Your task to perform on an android device: turn pop-ups on in chrome Image 0: 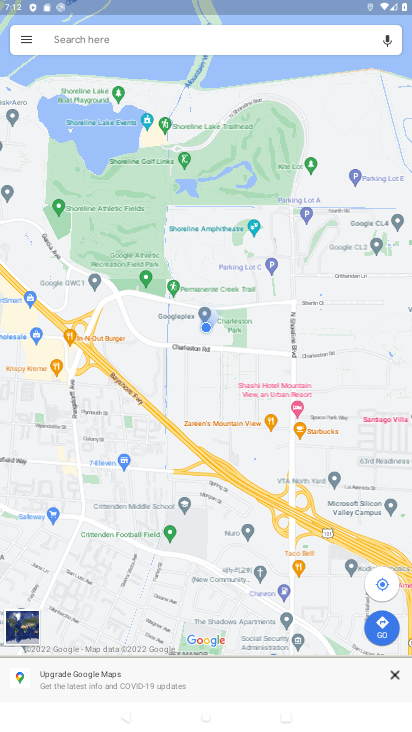
Step 0: press home button
Your task to perform on an android device: turn pop-ups on in chrome Image 1: 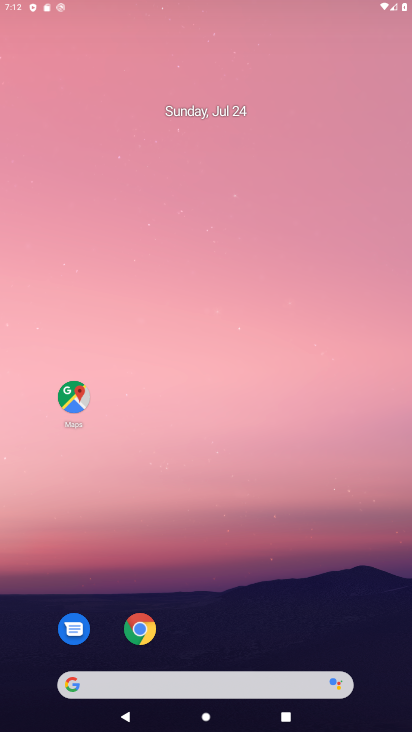
Step 1: drag from (223, 30) to (23, 206)
Your task to perform on an android device: turn pop-ups on in chrome Image 2: 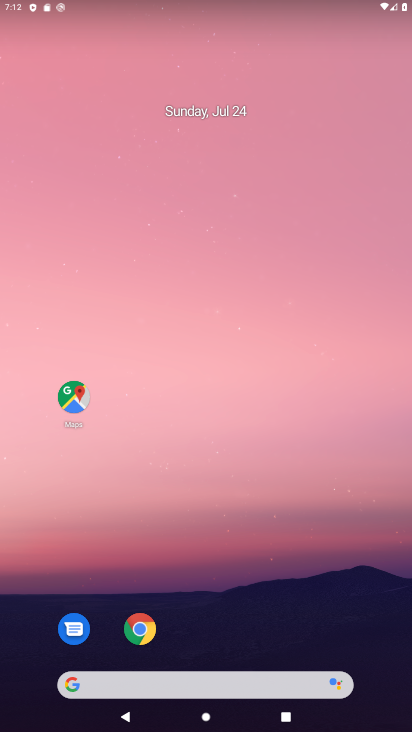
Step 2: drag from (321, 615) to (231, 0)
Your task to perform on an android device: turn pop-ups on in chrome Image 3: 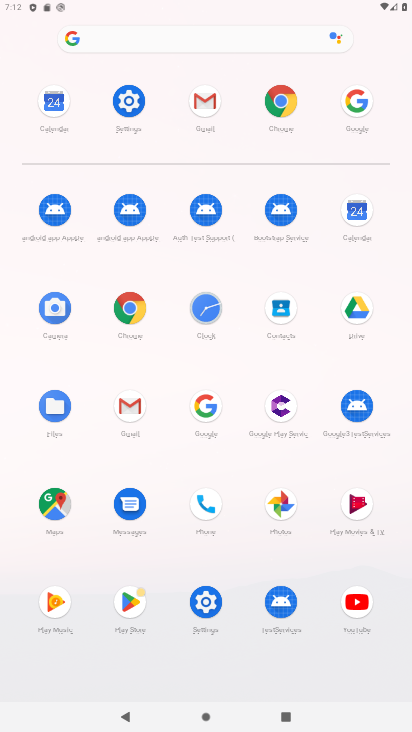
Step 3: click (123, 304)
Your task to perform on an android device: turn pop-ups on in chrome Image 4: 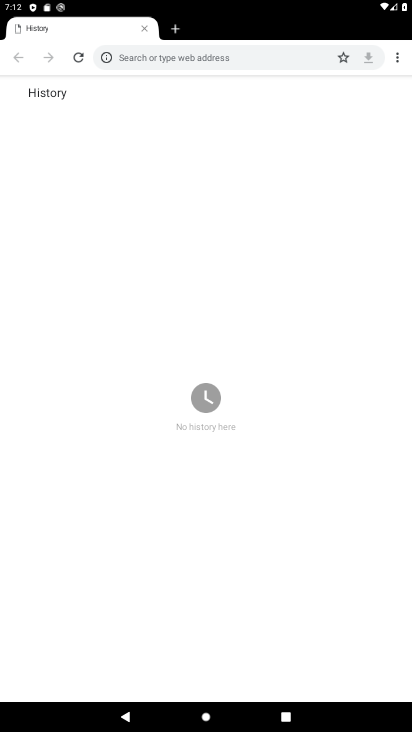
Step 4: click (394, 52)
Your task to perform on an android device: turn pop-ups on in chrome Image 5: 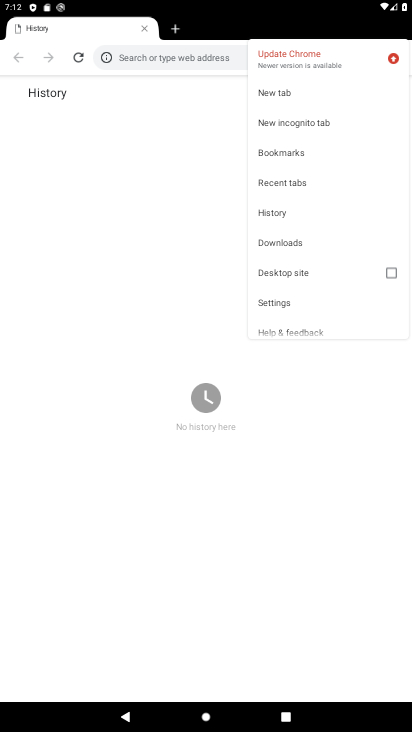
Step 5: click (270, 311)
Your task to perform on an android device: turn pop-ups on in chrome Image 6: 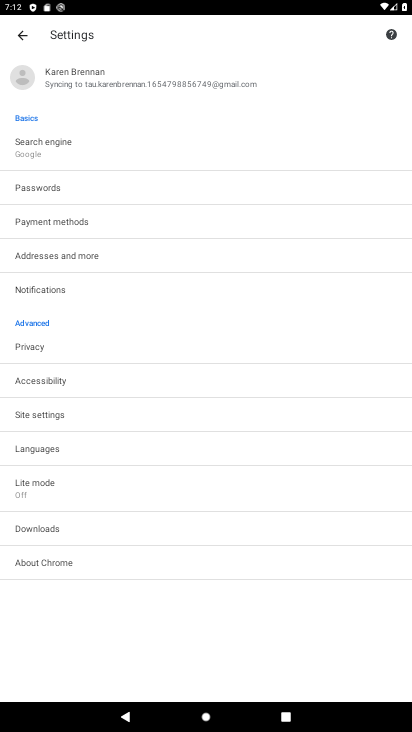
Step 6: click (81, 417)
Your task to perform on an android device: turn pop-ups on in chrome Image 7: 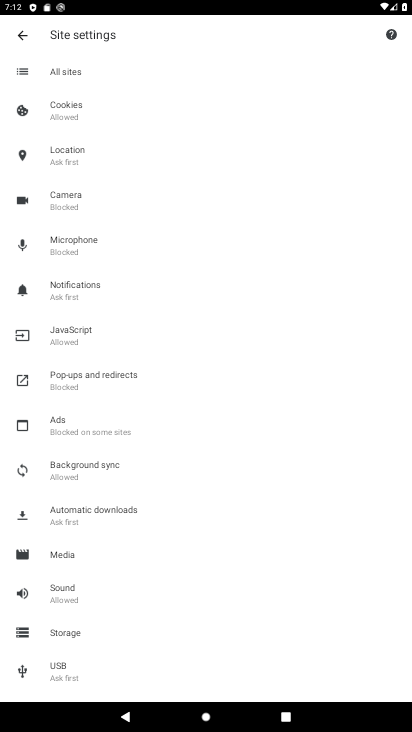
Step 7: click (114, 376)
Your task to perform on an android device: turn pop-ups on in chrome Image 8: 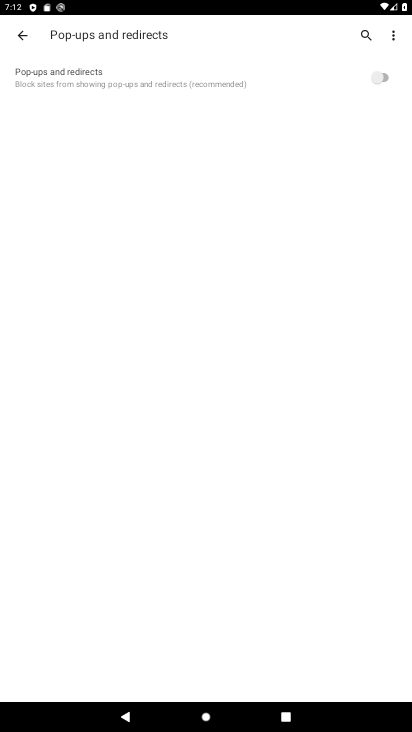
Step 8: click (332, 74)
Your task to perform on an android device: turn pop-ups on in chrome Image 9: 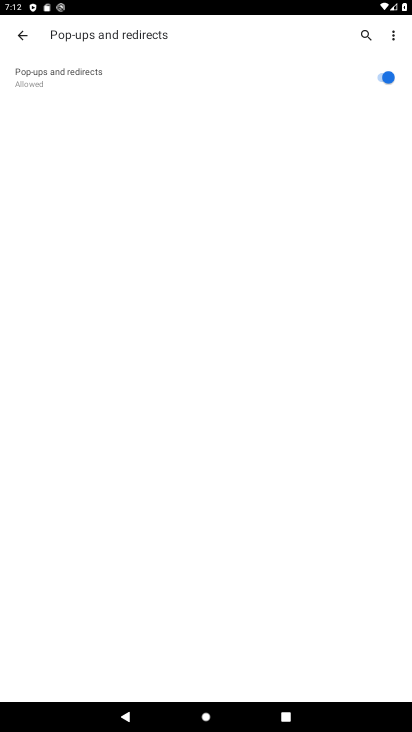
Step 9: task complete